Your task to perform on an android device: Open sound settings Image 0: 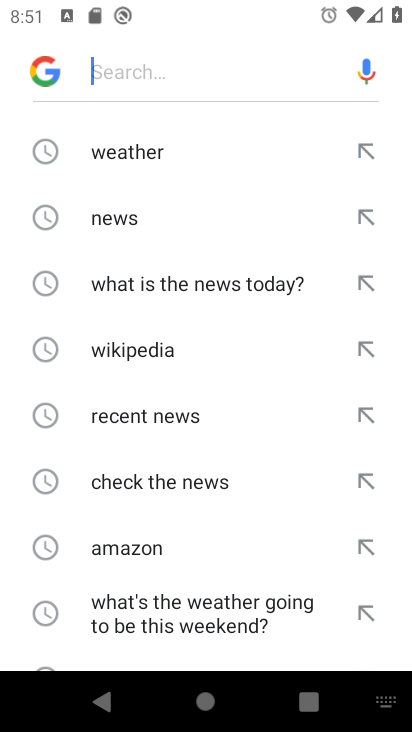
Step 0: press home button
Your task to perform on an android device: Open sound settings Image 1: 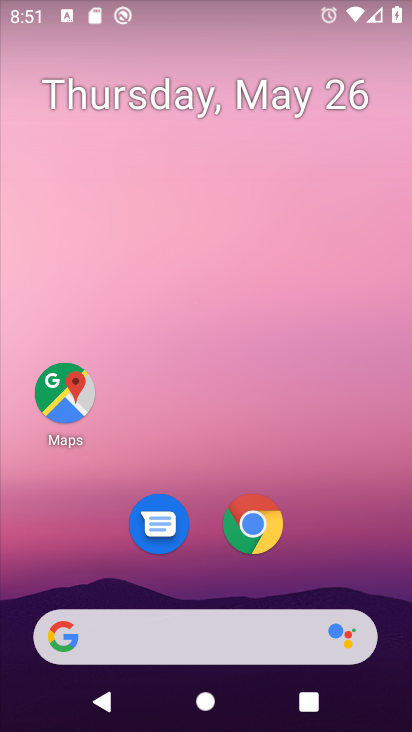
Step 1: drag from (192, 564) to (150, 47)
Your task to perform on an android device: Open sound settings Image 2: 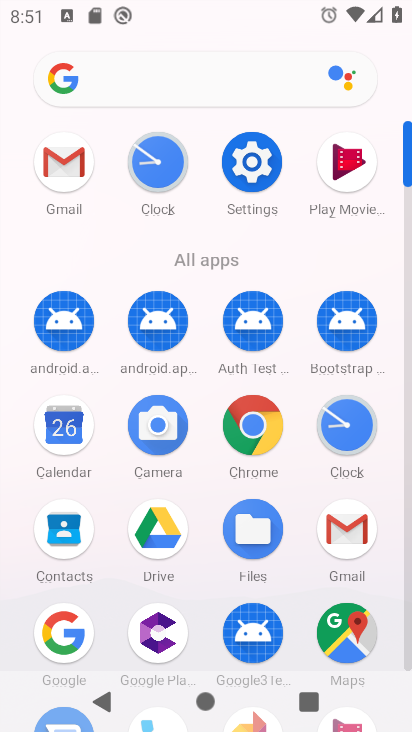
Step 2: click (266, 171)
Your task to perform on an android device: Open sound settings Image 3: 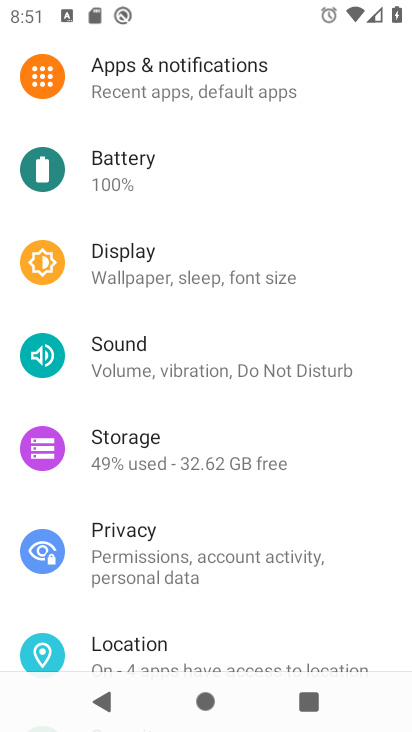
Step 3: click (171, 334)
Your task to perform on an android device: Open sound settings Image 4: 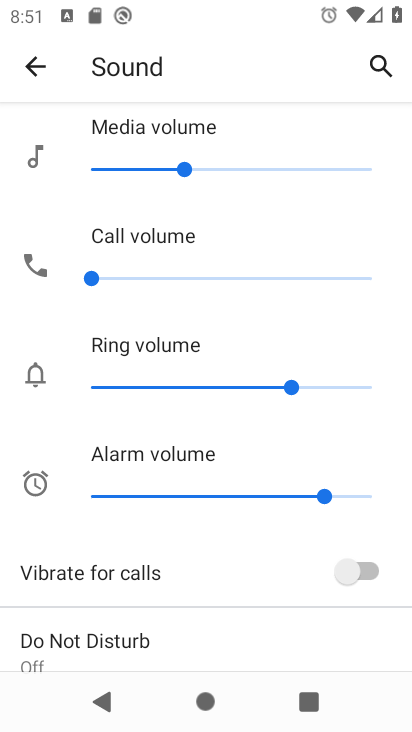
Step 4: task complete